Your task to perform on an android device: Go to Google maps Image 0: 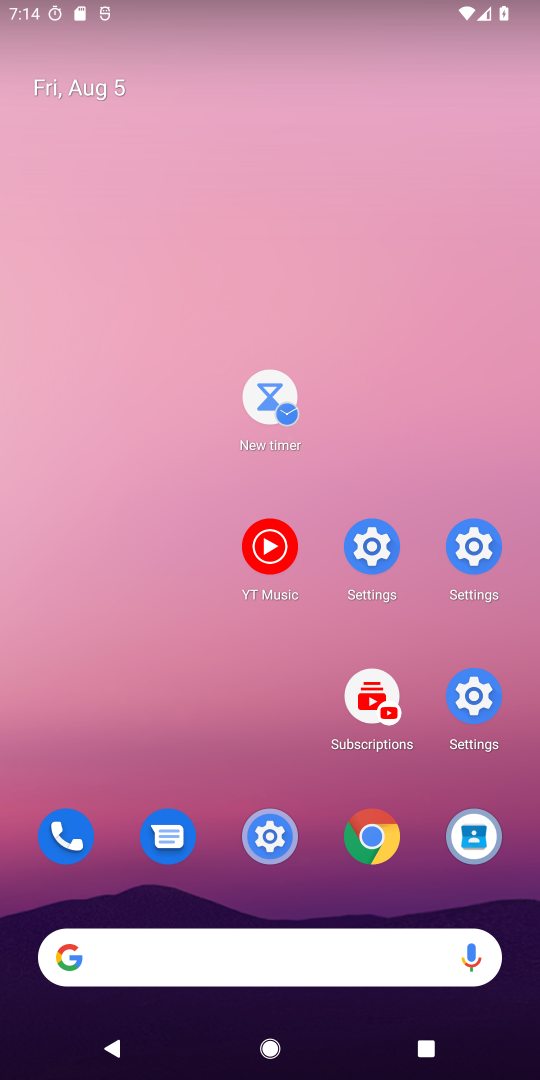
Step 0: drag from (265, 90) to (241, 256)
Your task to perform on an android device: Go to Google maps Image 1: 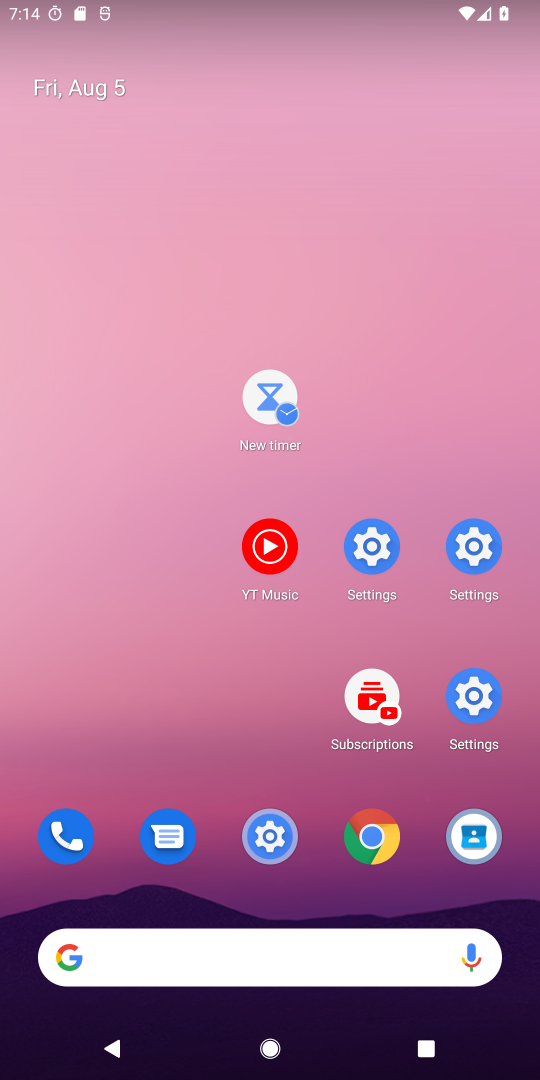
Step 1: drag from (316, 952) to (209, 343)
Your task to perform on an android device: Go to Google maps Image 2: 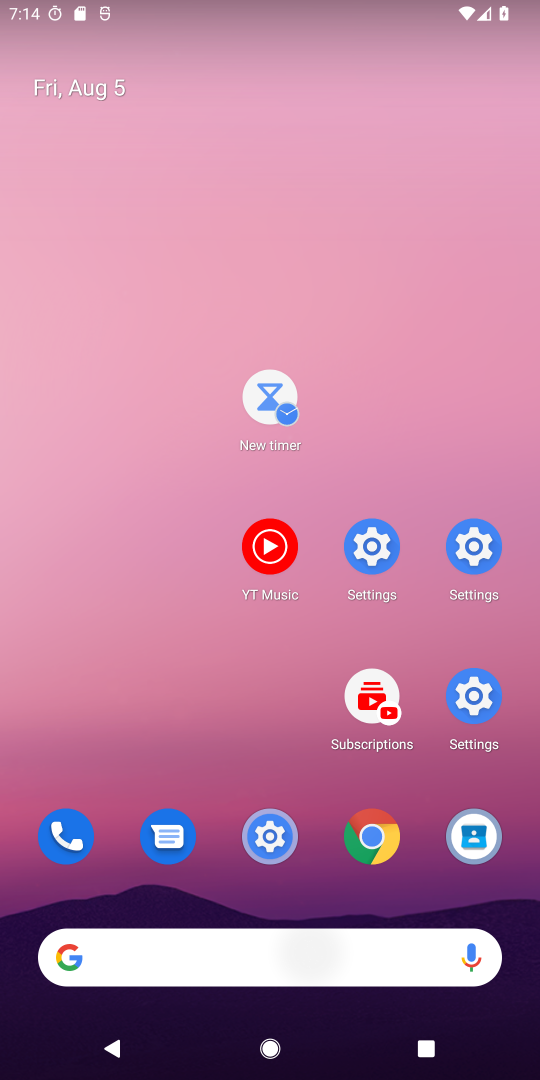
Step 2: drag from (294, 759) to (218, 278)
Your task to perform on an android device: Go to Google maps Image 3: 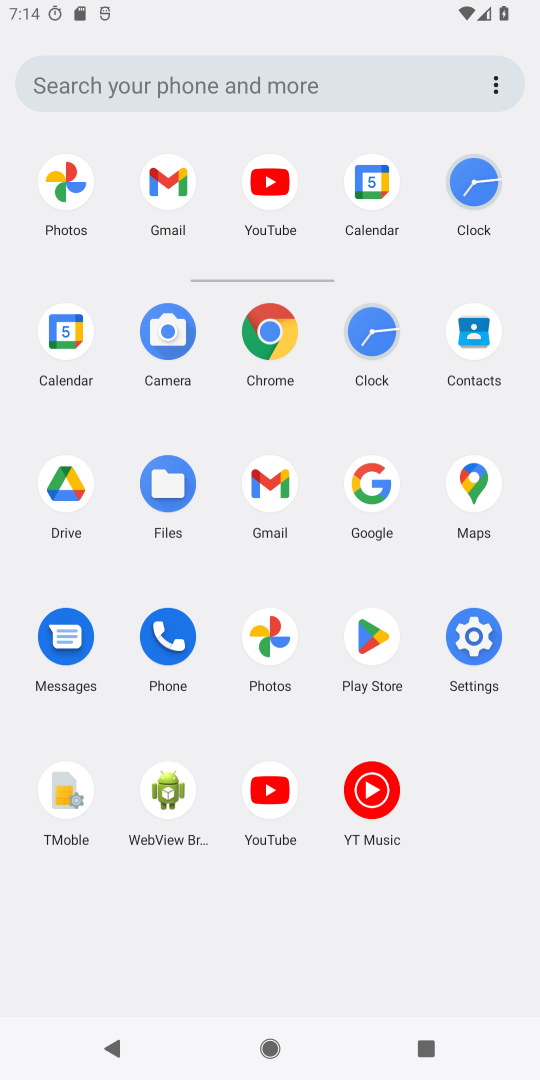
Step 3: drag from (257, 596) to (225, 166)
Your task to perform on an android device: Go to Google maps Image 4: 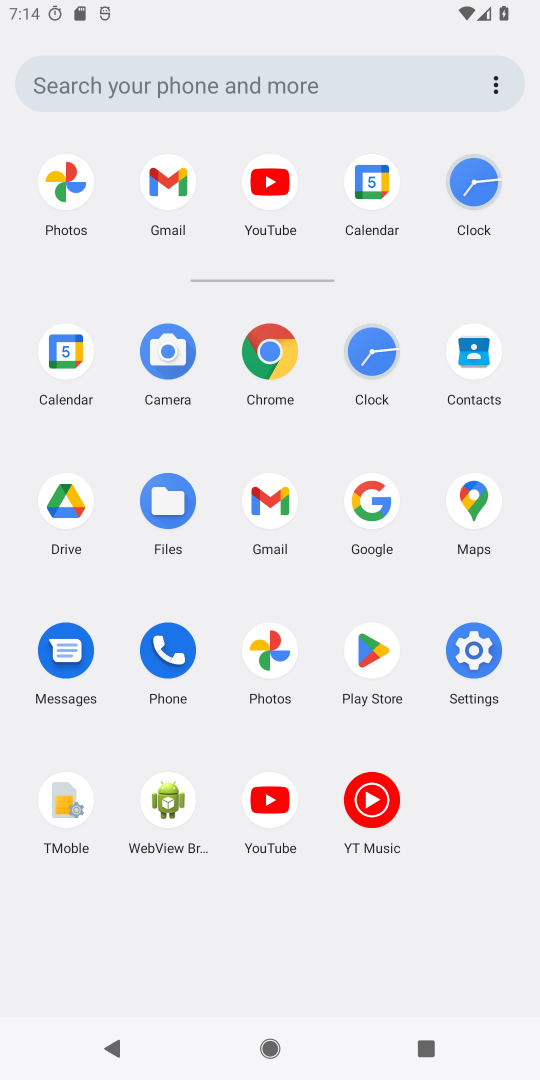
Step 4: click (468, 498)
Your task to perform on an android device: Go to Google maps Image 5: 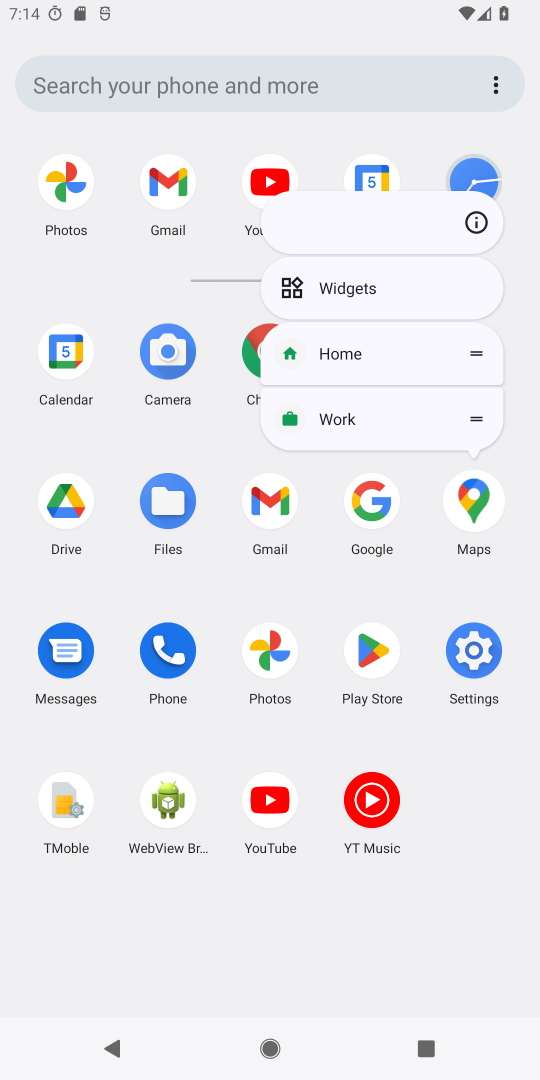
Step 5: click (468, 498)
Your task to perform on an android device: Go to Google maps Image 6: 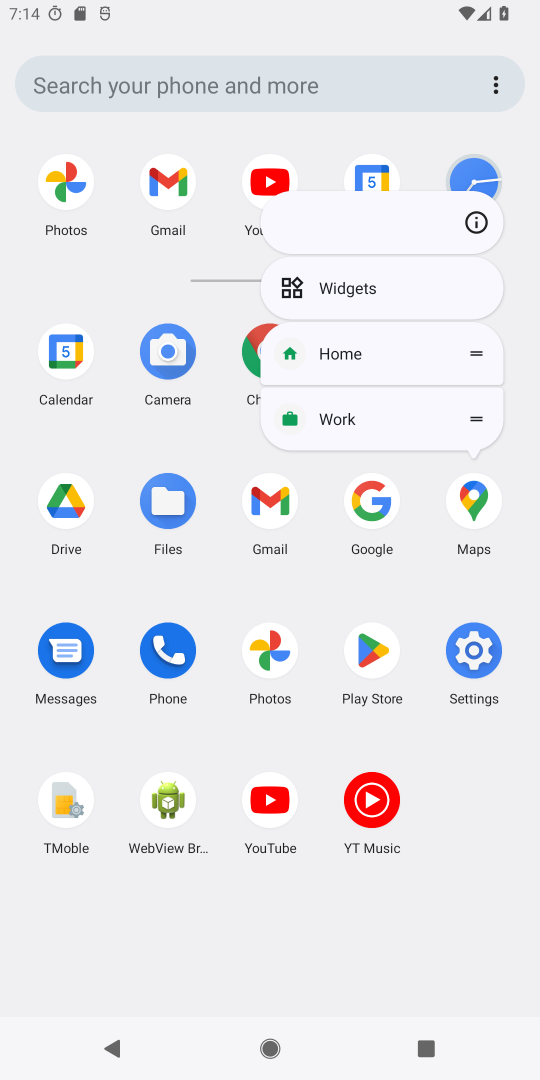
Step 6: click (468, 498)
Your task to perform on an android device: Go to Google maps Image 7: 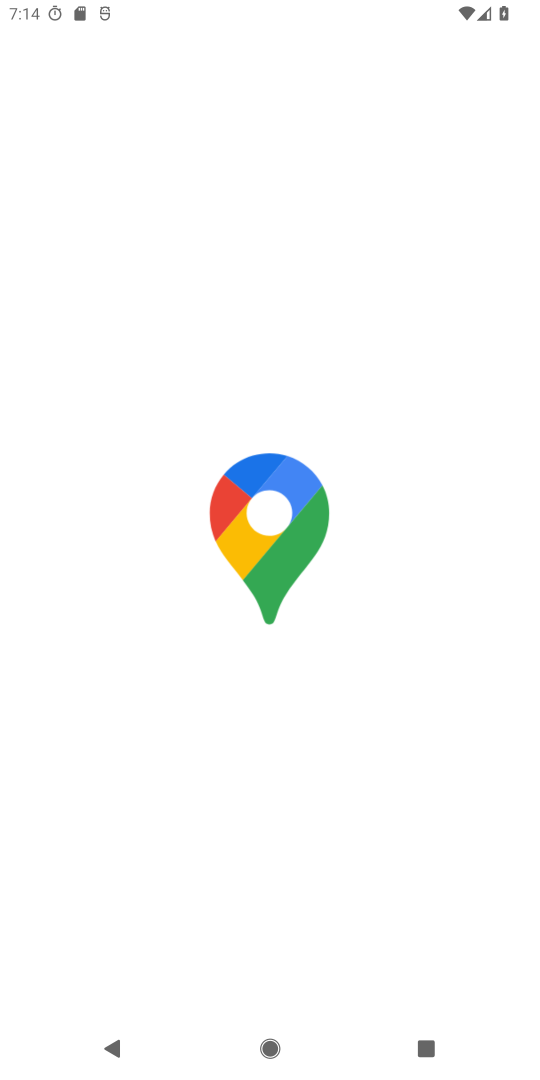
Step 7: click (468, 498)
Your task to perform on an android device: Go to Google maps Image 8: 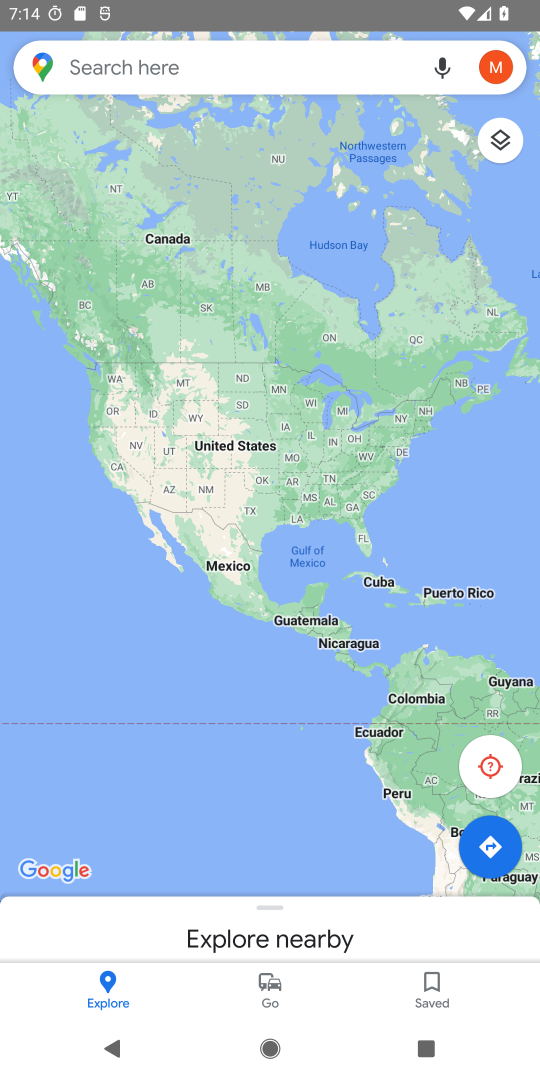
Step 8: task complete